Your task to perform on an android device: Open the web browser Image 0: 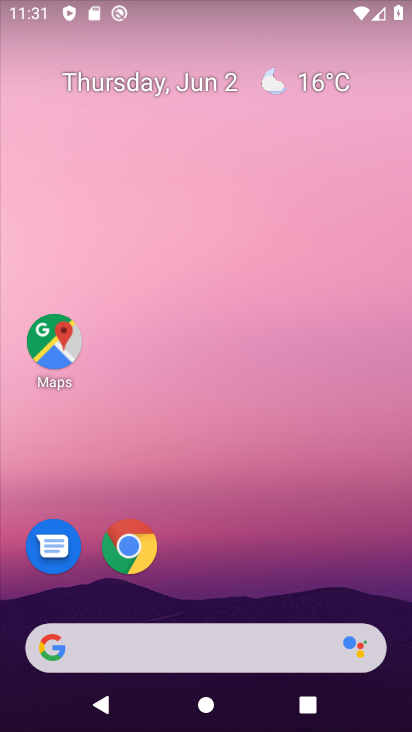
Step 0: drag from (339, 496) to (347, 172)
Your task to perform on an android device: Open the web browser Image 1: 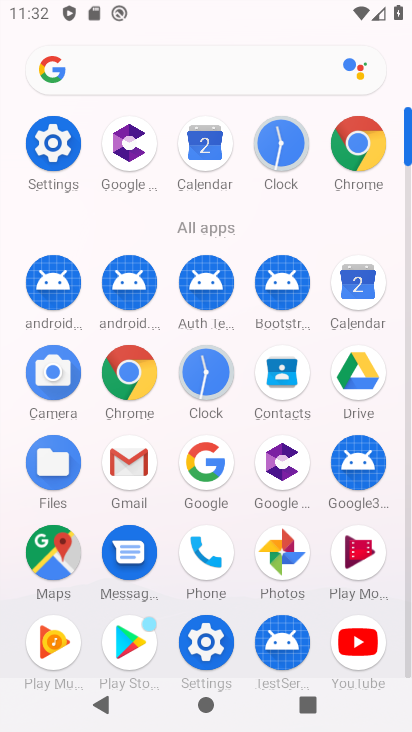
Step 1: click (140, 368)
Your task to perform on an android device: Open the web browser Image 2: 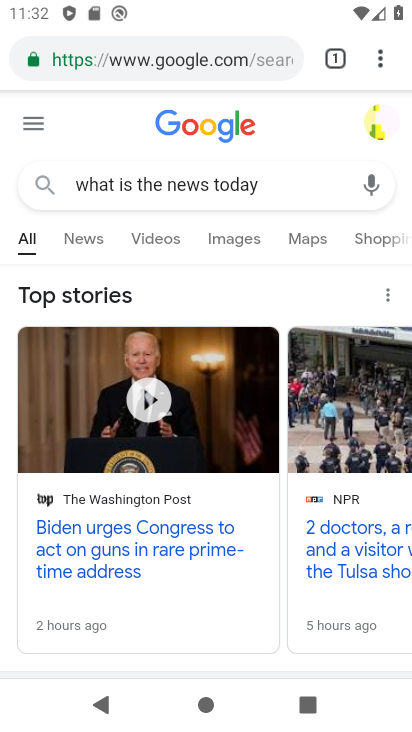
Step 2: task complete